Your task to perform on an android device: Go to network settings Image 0: 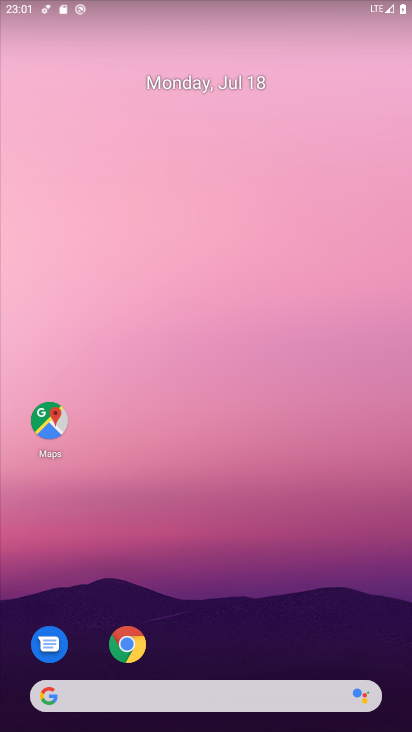
Step 0: drag from (338, 618) to (353, 152)
Your task to perform on an android device: Go to network settings Image 1: 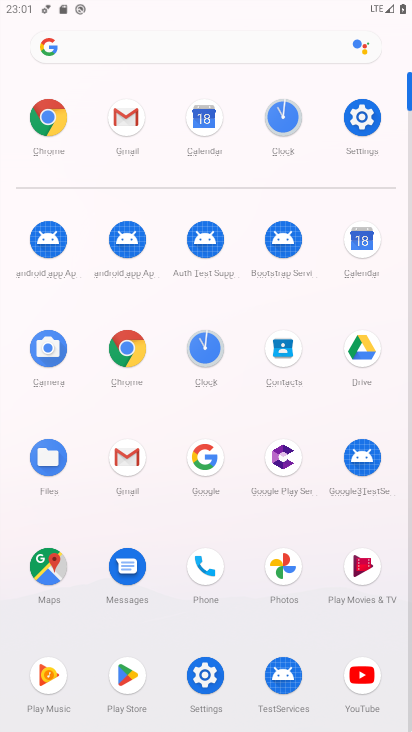
Step 1: click (362, 125)
Your task to perform on an android device: Go to network settings Image 2: 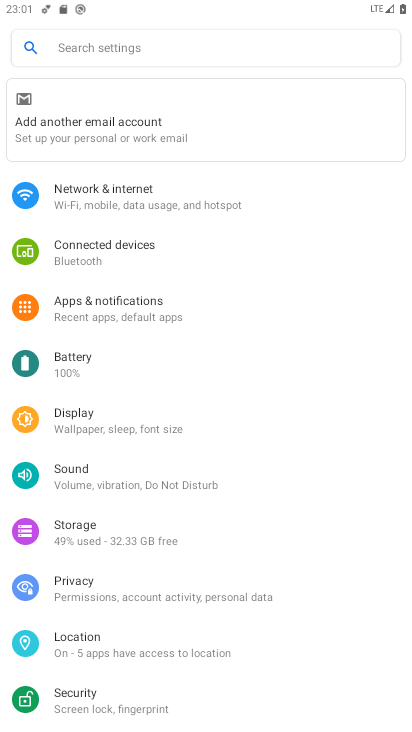
Step 2: drag from (323, 590) to (332, 451)
Your task to perform on an android device: Go to network settings Image 3: 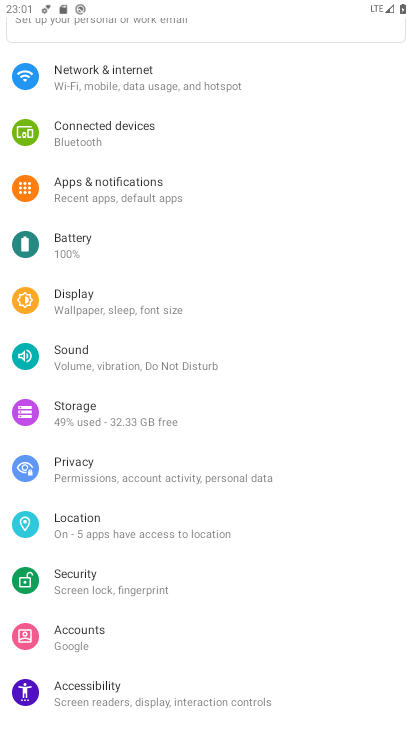
Step 3: drag from (323, 579) to (331, 434)
Your task to perform on an android device: Go to network settings Image 4: 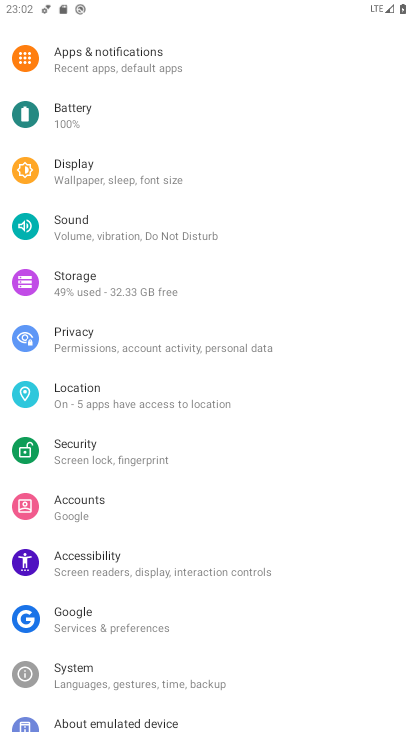
Step 4: drag from (338, 598) to (340, 496)
Your task to perform on an android device: Go to network settings Image 5: 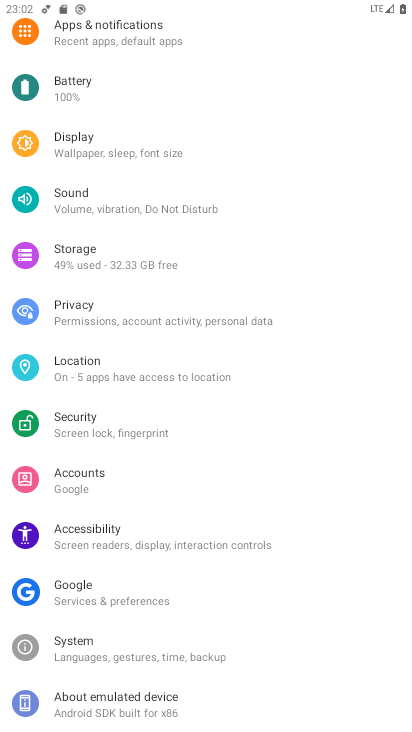
Step 5: drag from (331, 329) to (326, 424)
Your task to perform on an android device: Go to network settings Image 6: 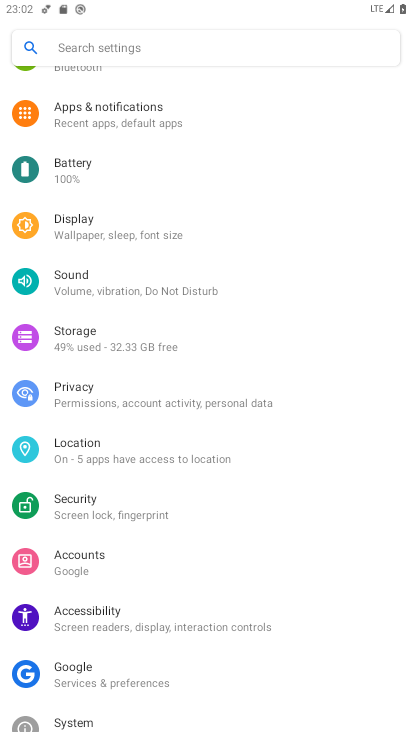
Step 6: drag from (326, 319) to (315, 450)
Your task to perform on an android device: Go to network settings Image 7: 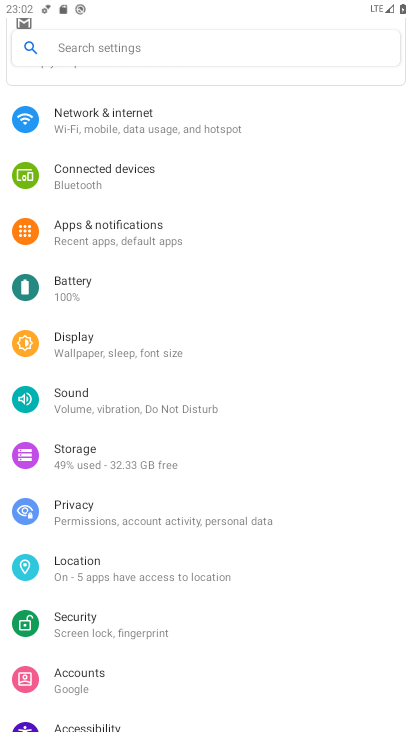
Step 7: drag from (320, 307) to (319, 439)
Your task to perform on an android device: Go to network settings Image 8: 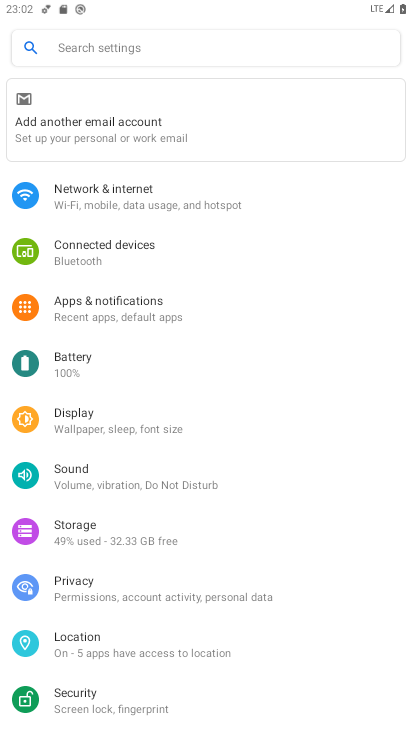
Step 8: drag from (317, 293) to (313, 443)
Your task to perform on an android device: Go to network settings Image 9: 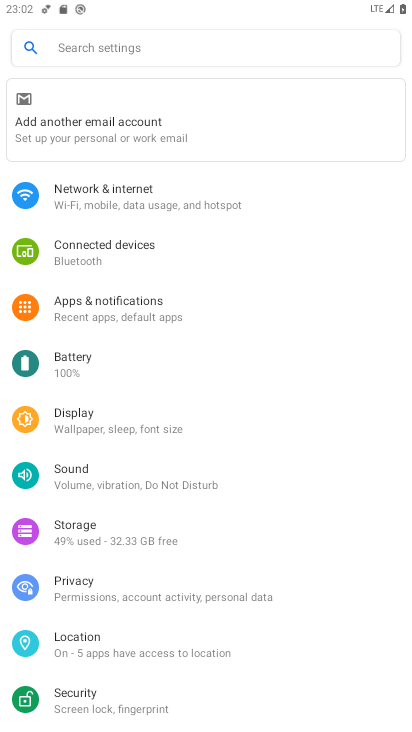
Step 9: drag from (320, 535) to (334, 416)
Your task to perform on an android device: Go to network settings Image 10: 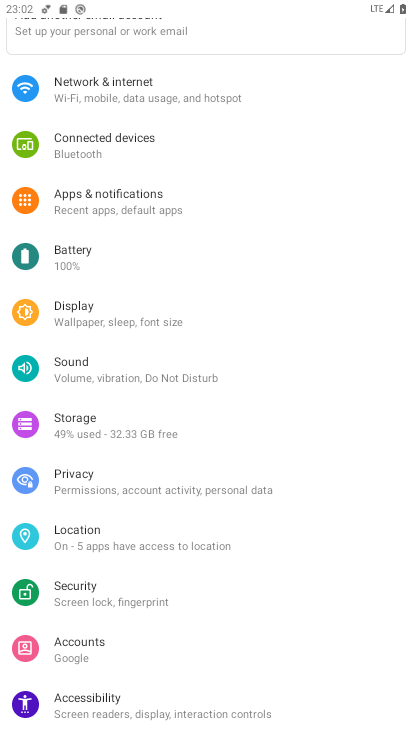
Step 10: drag from (329, 538) to (326, 408)
Your task to perform on an android device: Go to network settings Image 11: 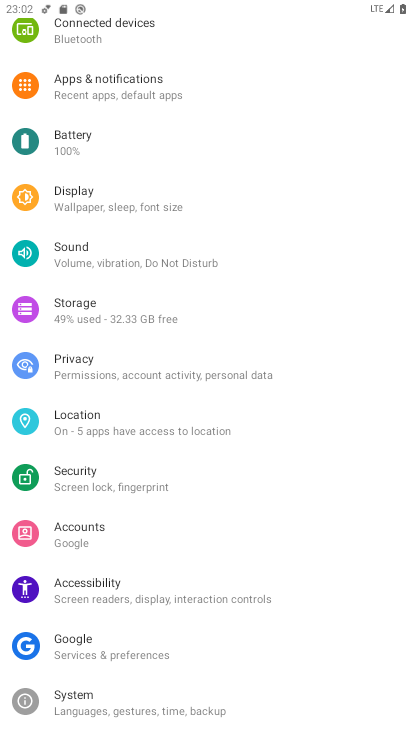
Step 11: drag from (324, 293) to (311, 452)
Your task to perform on an android device: Go to network settings Image 12: 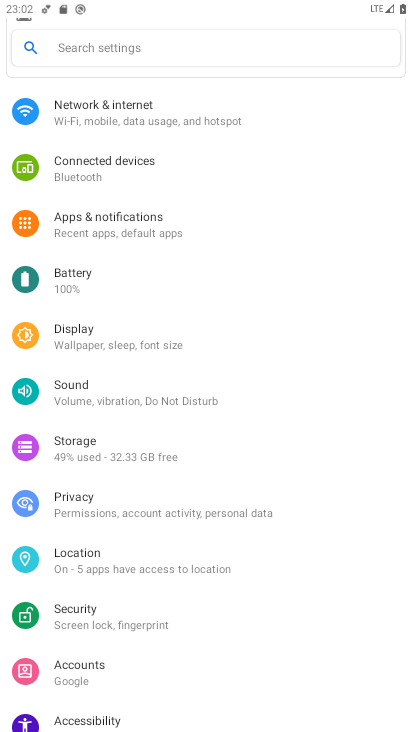
Step 12: drag from (317, 272) to (320, 405)
Your task to perform on an android device: Go to network settings Image 13: 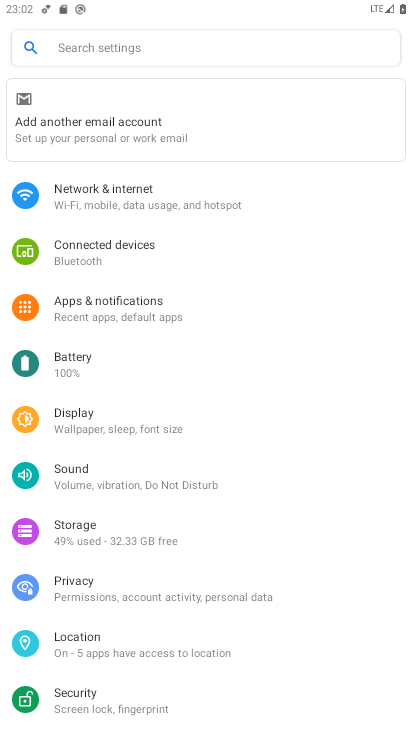
Step 13: click (248, 202)
Your task to perform on an android device: Go to network settings Image 14: 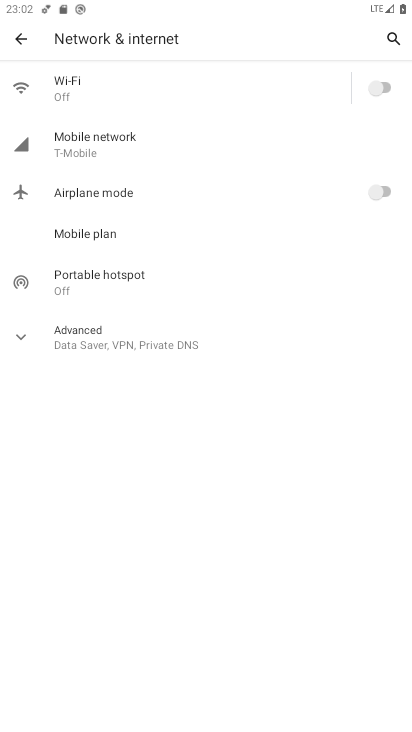
Step 14: task complete